Your task to perform on an android device: Open internet settings Image 0: 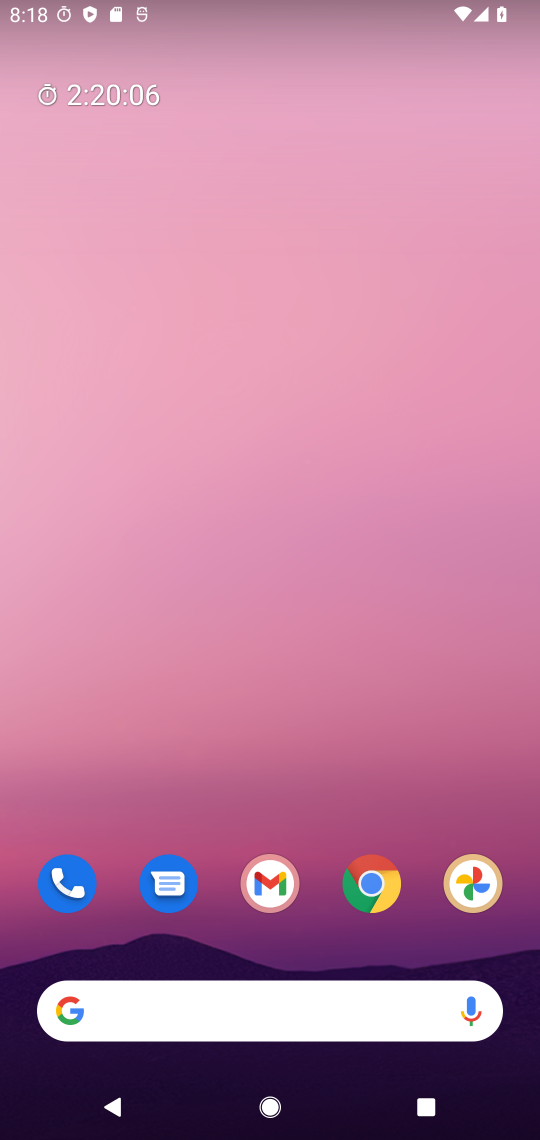
Step 0: drag from (253, 746) to (298, 118)
Your task to perform on an android device: Open internet settings Image 1: 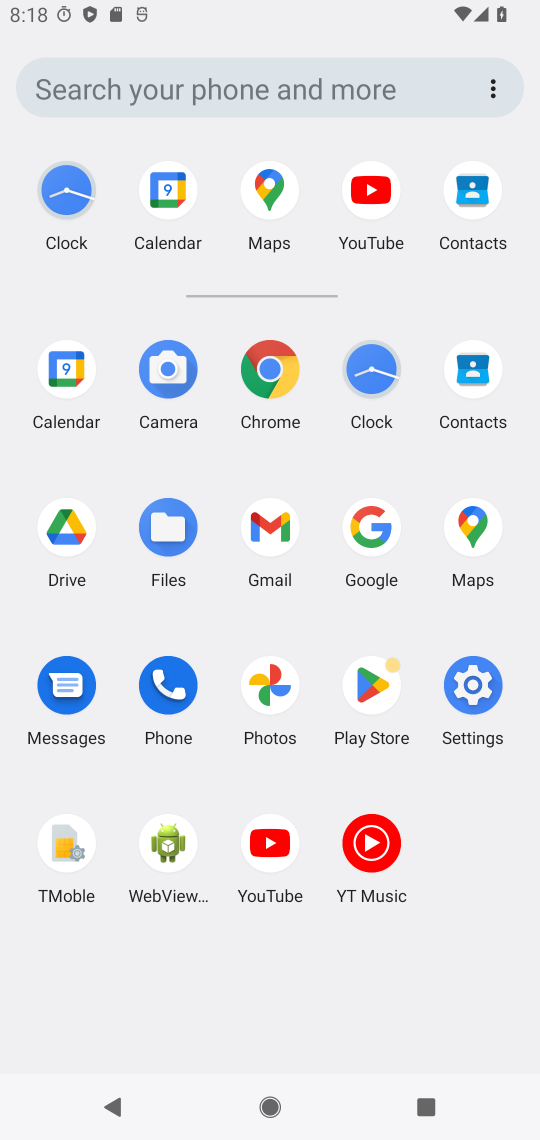
Step 1: click (453, 681)
Your task to perform on an android device: Open internet settings Image 2: 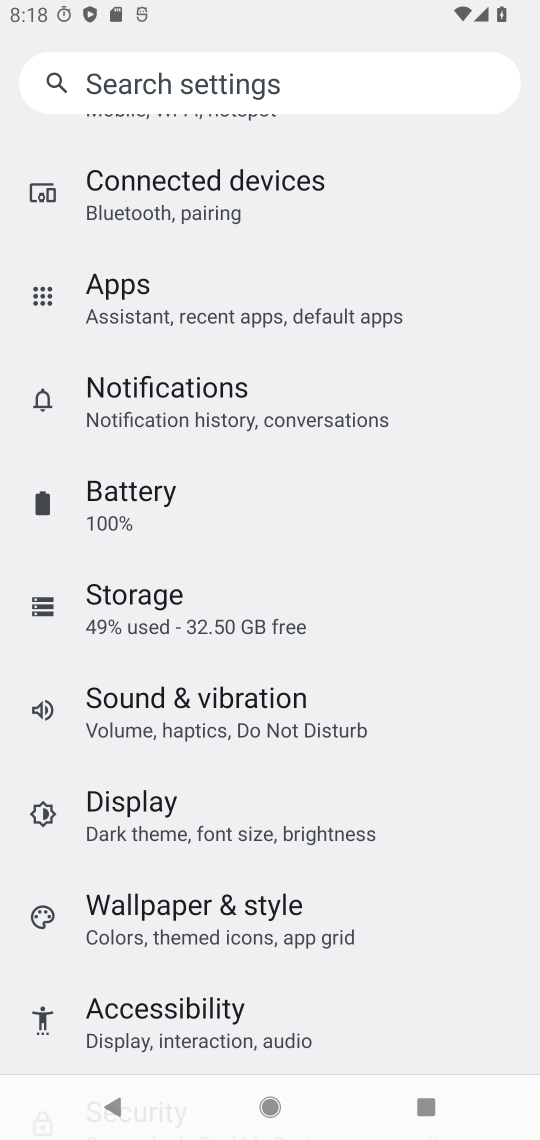
Step 2: drag from (304, 287) to (367, 765)
Your task to perform on an android device: Open internet settings Image 3: 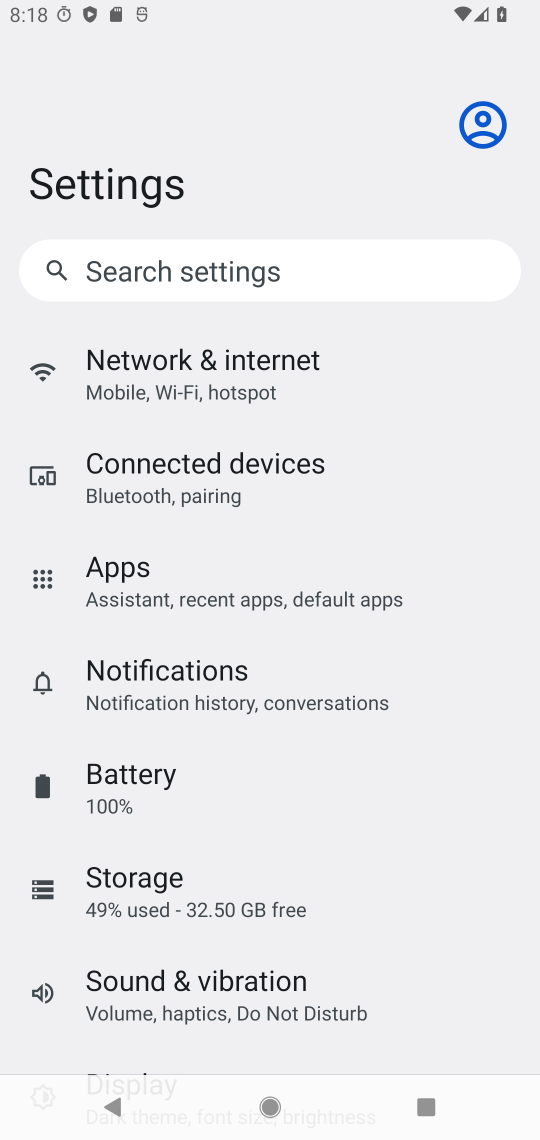
Step 3: click (240, 339)
Your task to perform on an android device: Open internet settings Image 4: 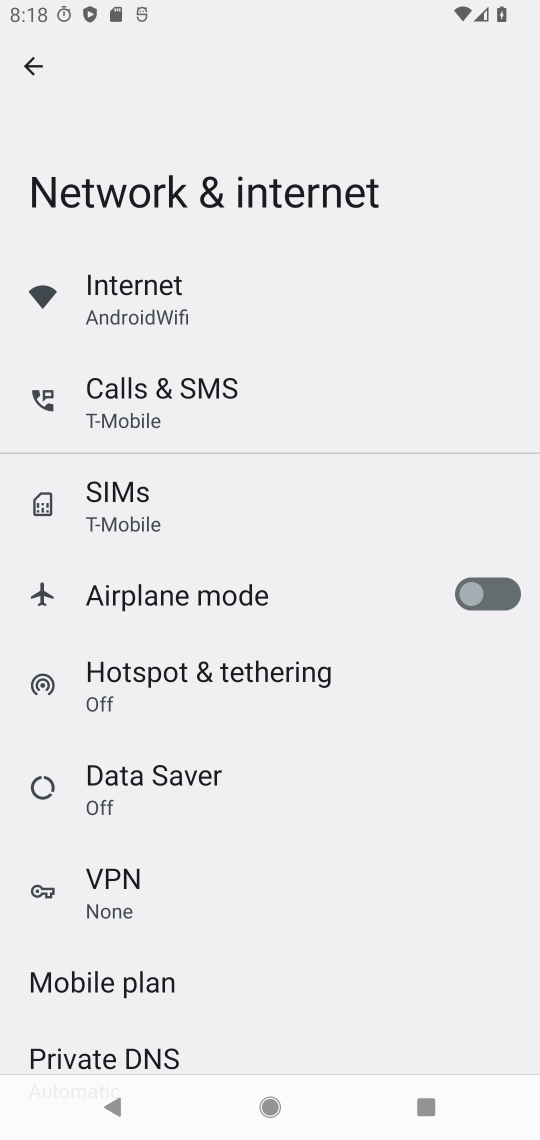
Step 4: click (238, 323)
Your task to perform on an android device: Open internet settings Image 5: 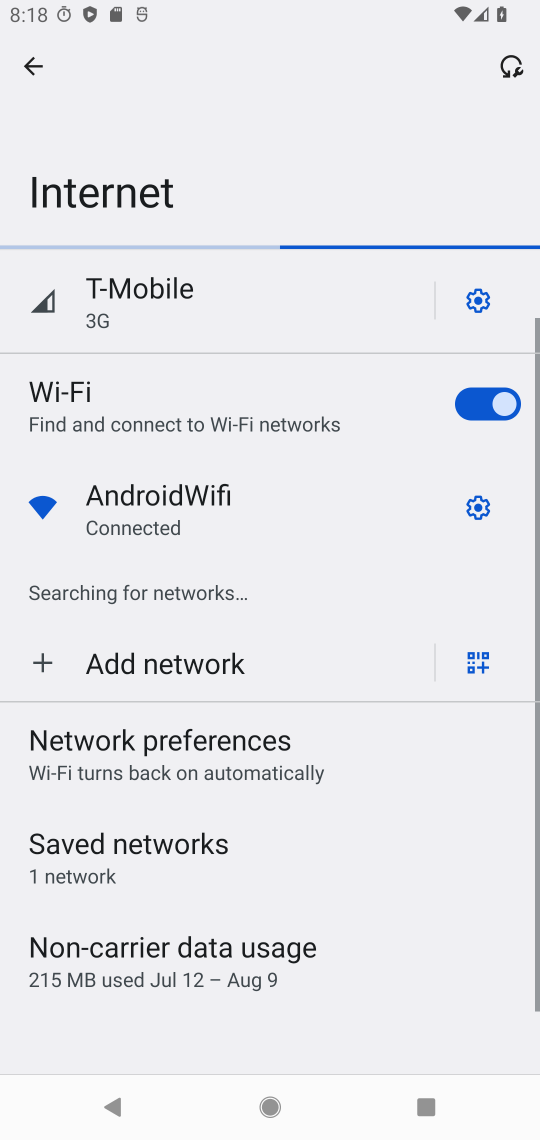
Step 5: task complete